Your task to perform on an android device: View the shopping cart on newegg.com. Add "razer nari" to the cart on newegg.com, then select checkout. Image 0: 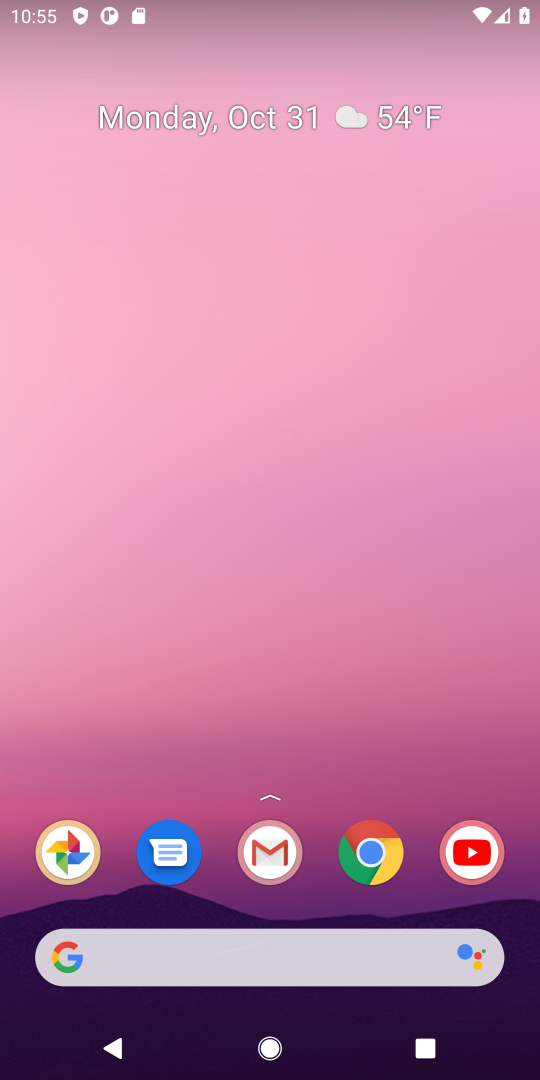
Step 0: click (387, 877)
Your task to perform on an android device: View the shopping cart on newegg.com. Add "razer nari" to the cart on newegg.com, then select checkout. Image 1: 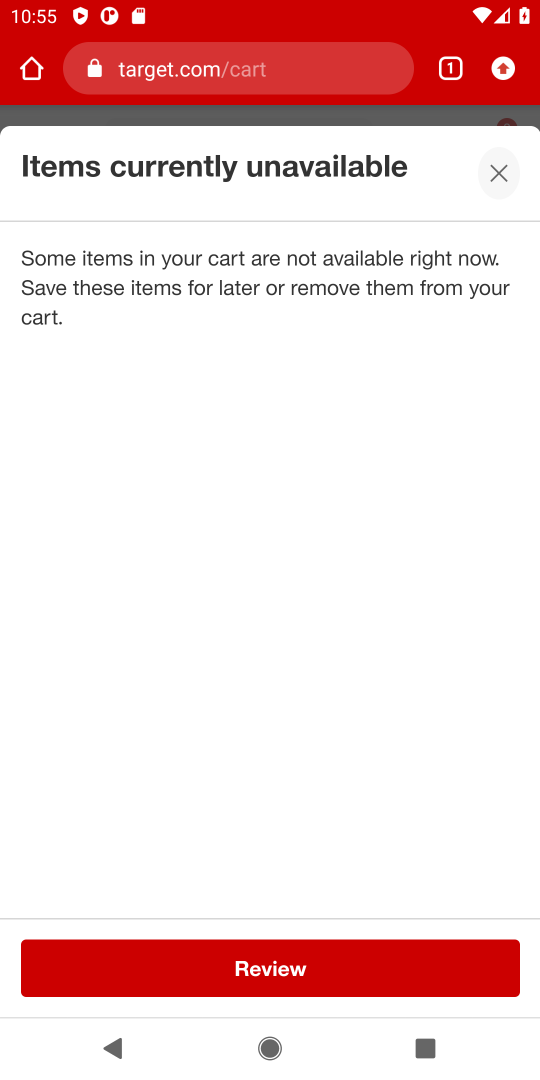
Step 1: click (314, 99)
Your task to perform on an android device: View the shopping cart on newegg.com. Add "razer nari" to the cart on newegg.com, then select checkout. Image 2: 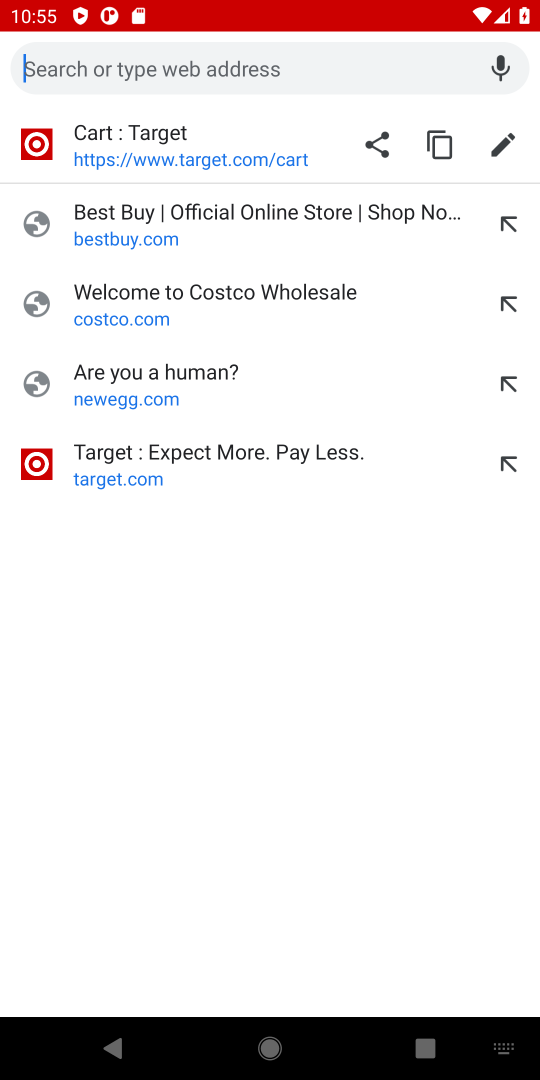
Step 2: type "newegg.com"
Your task to perform on an android device: View the shopping cart on newegg.com. Add "razer nari" to the cart on newegg.com, then select checkout. Image 3: 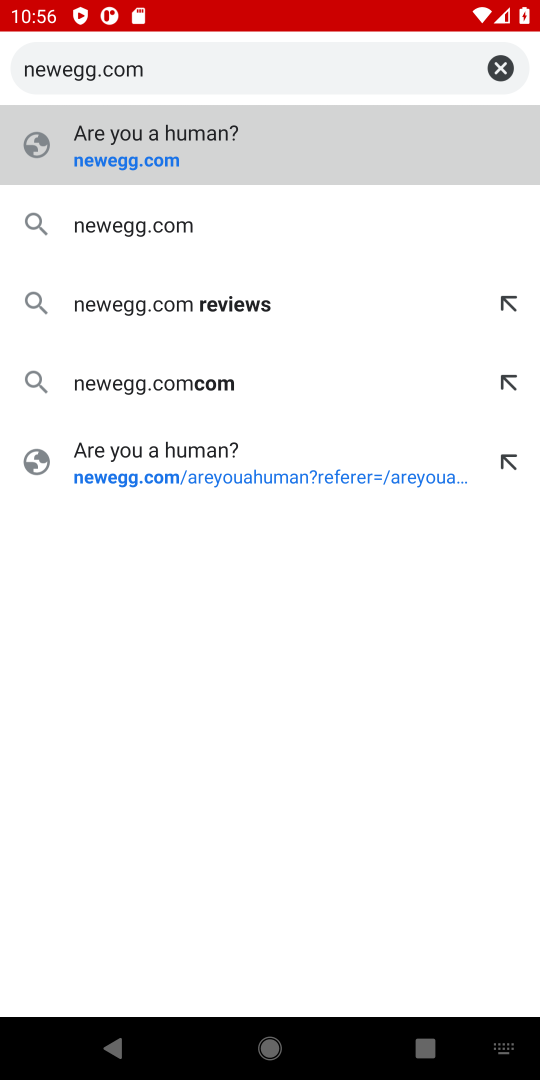
Step 3: press enter
Your task to perform on an android device: View the shopping cart on newegg.com. Add "razer nari" to the cart on newegg.com, then select checkout. Image 4: 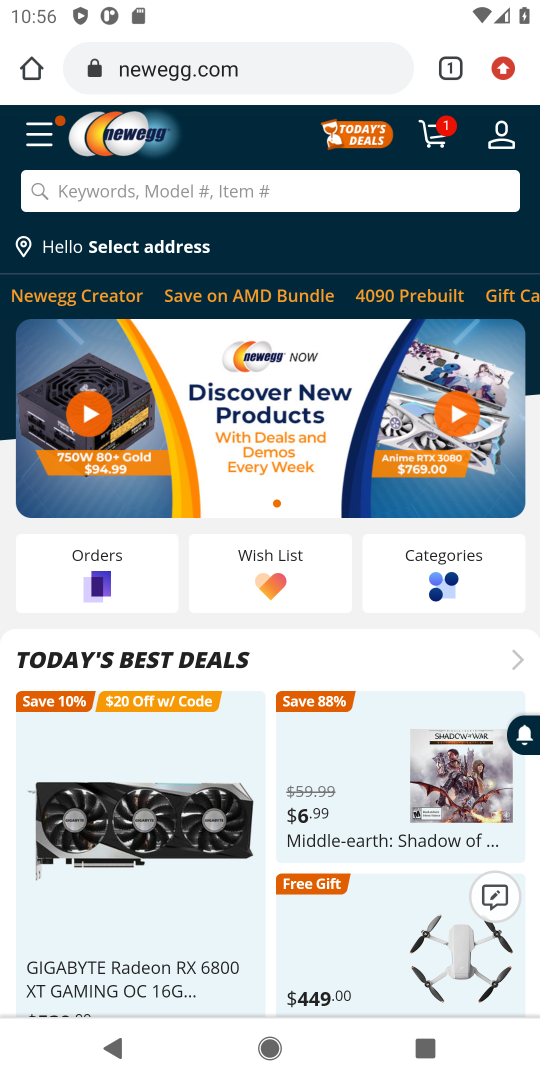
Step 4: click (429, 132)
Your task to perform on an android device: View the shopping cart on newegg.com. Add "razer nari" to the cart on newegg.com, then select checkout. Image 5: 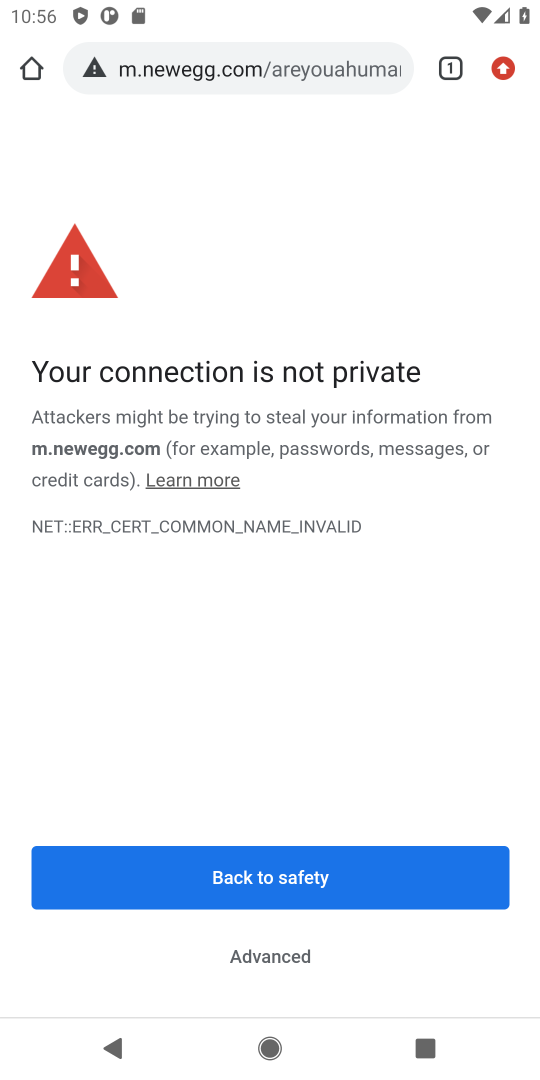
Step 5: click (245, 66)
Your task to perform on an android device: View the shopping cart on newegg.com. Add "razer nari" to the cart on newegg.com, then select checkout. Image 6: 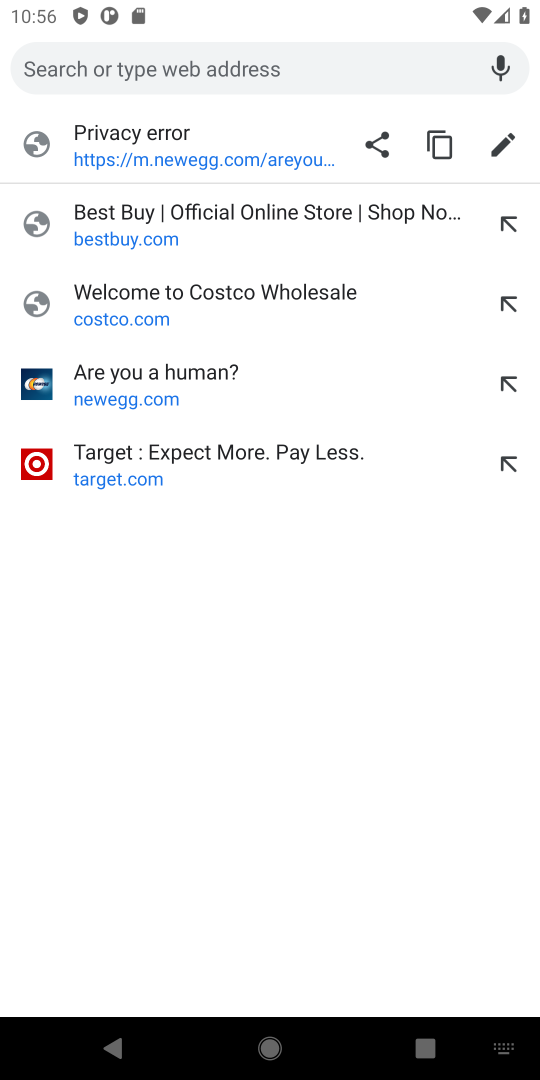
Step 6: type "newegg.com"
Your task to perform on an android device: View the shopping cart on newegg.com. Add "razer nari" to the cart on newegg.com, then select checkout. Image 7: 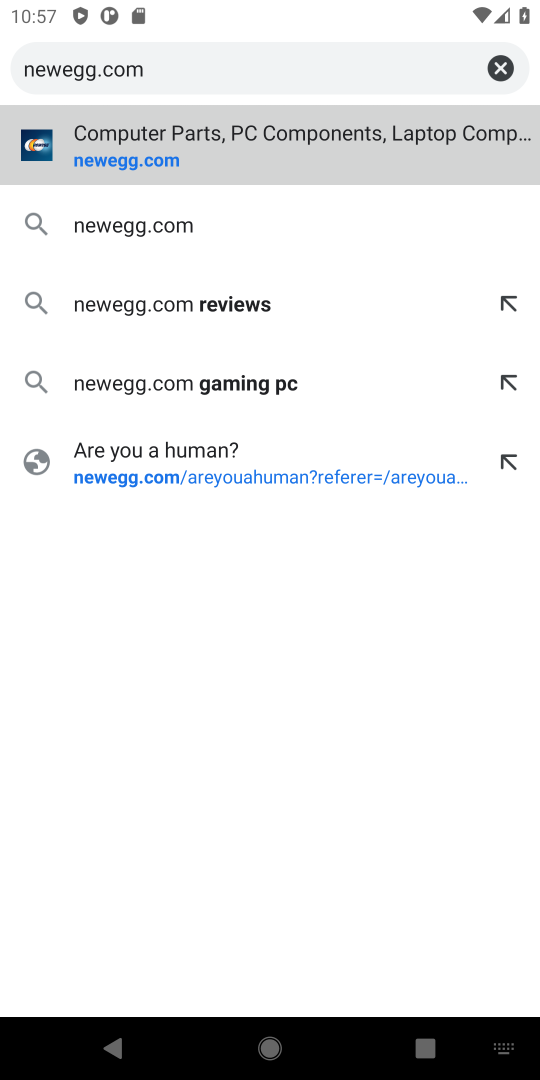
Step 7: press enter
Your task to perform on an android device: View the shopping cart on newegg.com. Add "razer nari" to the cart on newegg.com, then select checkout. Image 8: 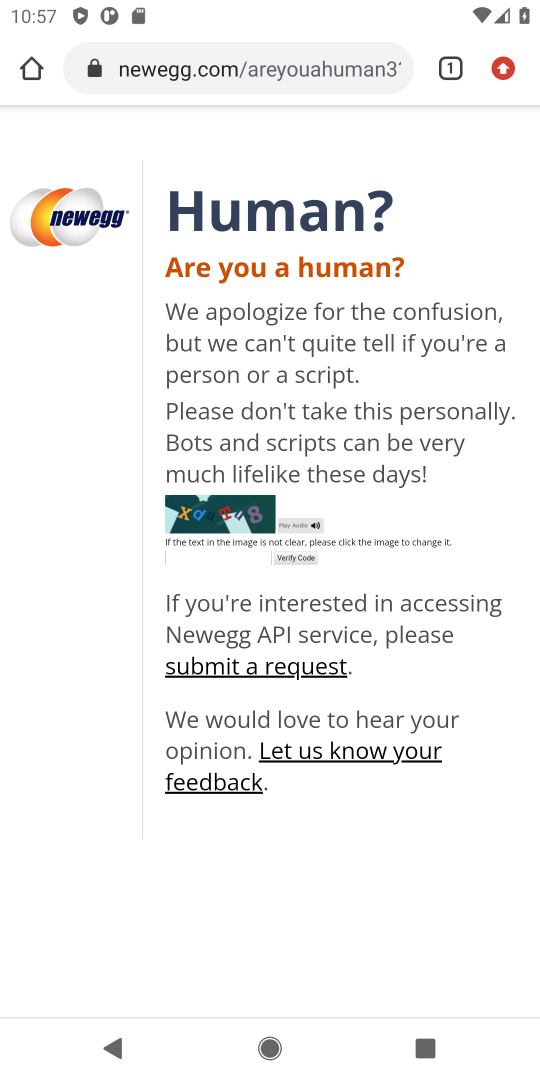
Step 8: click (202, 561)
Your task to perform on an android device: View the shopping cart on newegg.com. Add "razer nari" to the cart on newegg.com, then select checkout. Image 9: 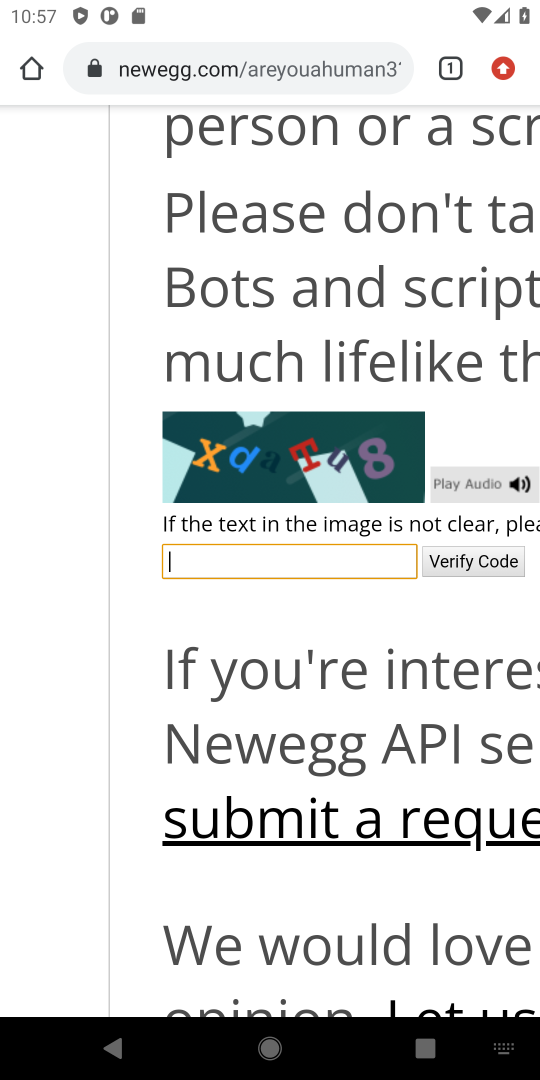
Step 9: type "xdaR"
Your task to perform on an android device: View the shopping cart on newegg.com. Add "razer nari" to the cart on newegg.com, then select checkout. Image 10: 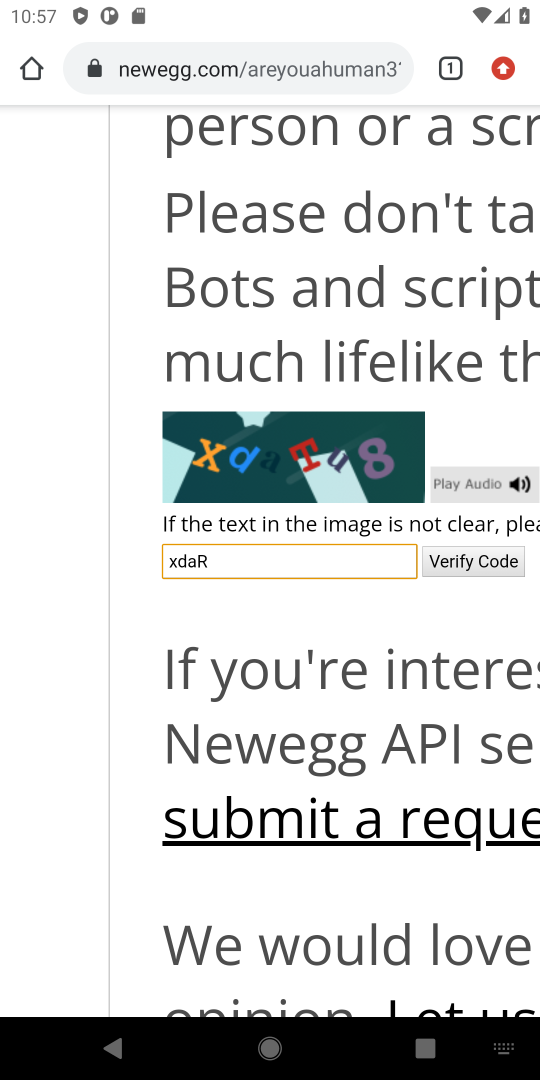
Step 10: type "x"
Your task to perform on an android device: View the shopping cart on newegg.com. Add "razer nari" to the cart on newegg.com, then select checkout. Image 11: 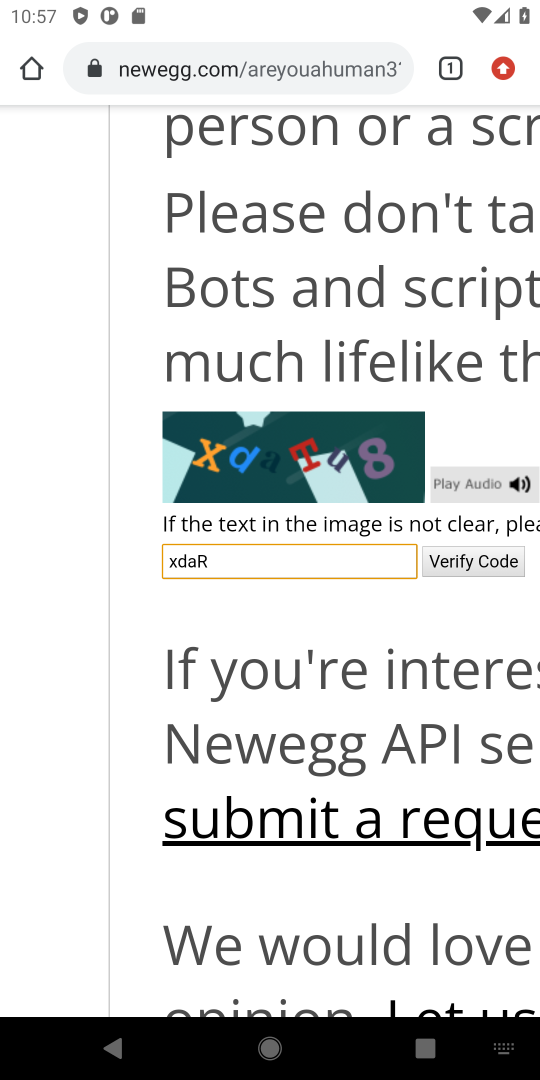
Step 11: click (268, 561)
Your task to perform on an android device: View the shopping cart on newegg.com. Add "razer nari" to the cart on newegg.com, then select checkout. Image 12: 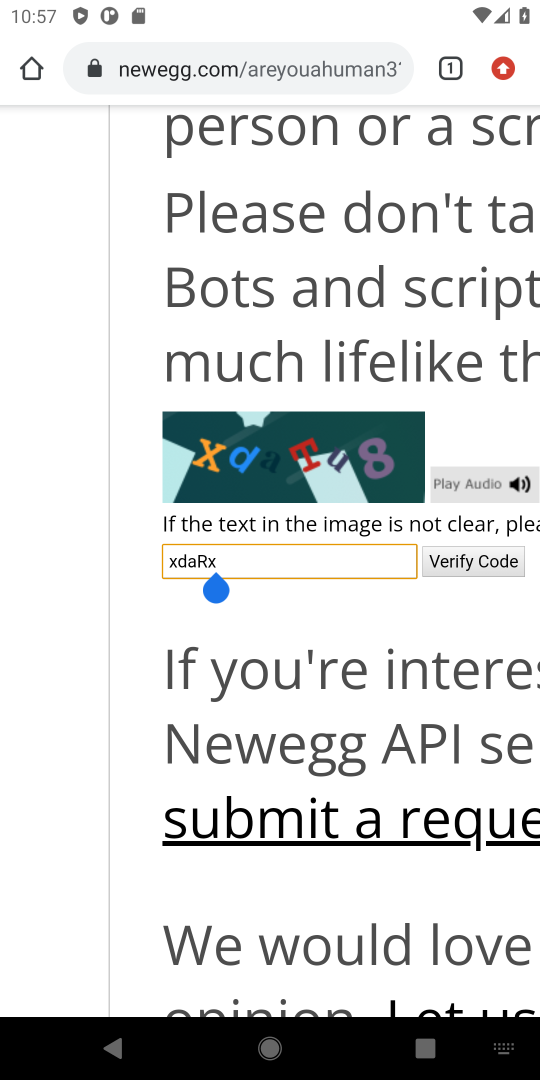
Step 12: click (204, 565)
Your task to perform on an android device: View the shopping cart on newegg.com. Add "razer nari" to the cart on newegg.com, then select checkout. Image 13: 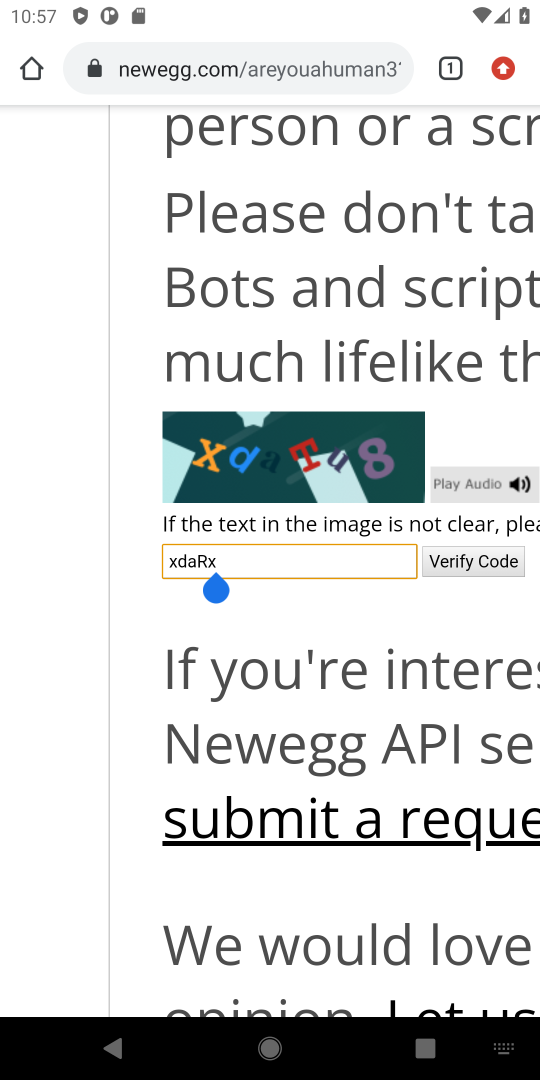
Step 13: click (204, 565)
Your task to perform on an android device: View the shopping cart on newegg.com. Add "razer nari" to the cart on newegg.com, then select checkout. Image 14: 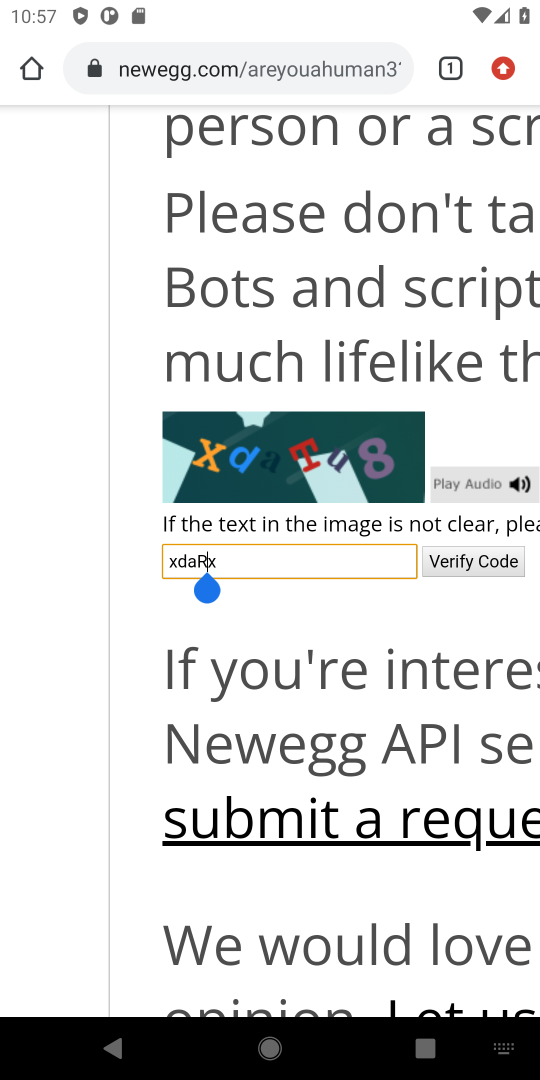
Step 14: click (204, 565)
Your task to perform on an android device: View the shopping cart on newegg.com. Add "razer nari" to the cart on newegg.com, then select checkout. Image 15: 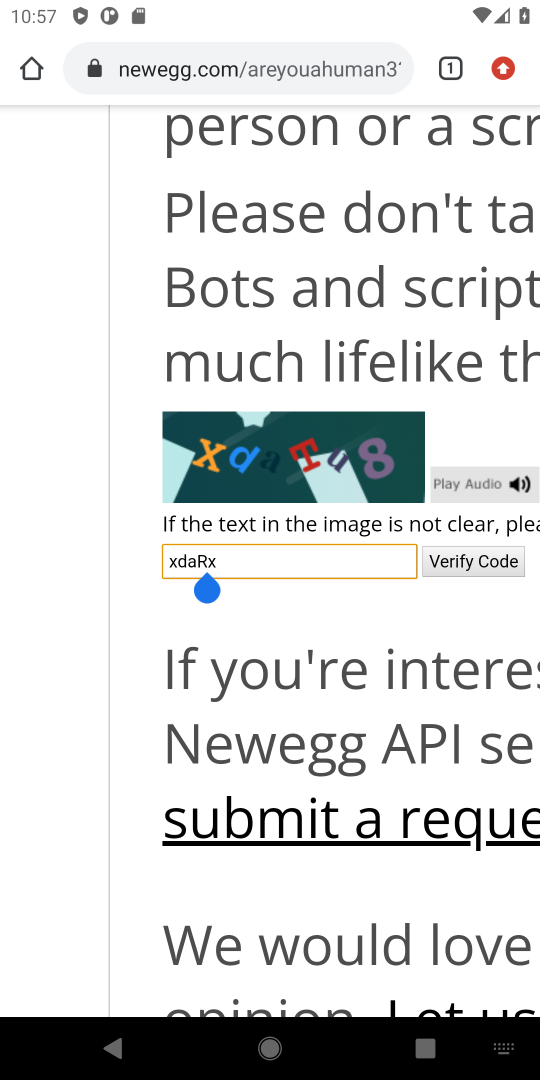
Step 15: click (204, 565)
Your task to perform on an android device: View the shopping cart on newegg.com. Add "razer nari" to the cart on newegg.com, then select checkout. Image 16: 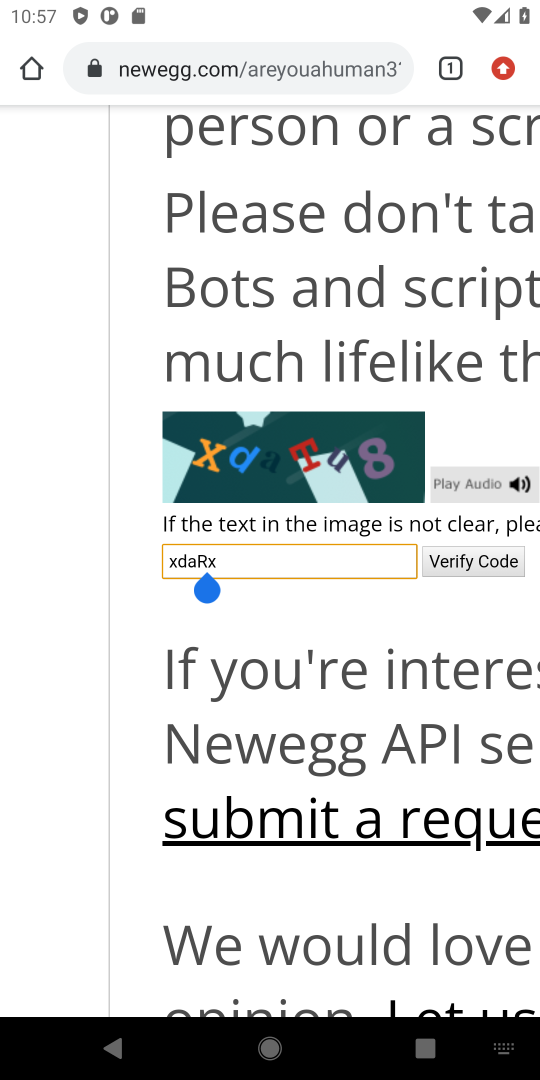
Step 16: click (204, 565)
Your task to perform on an android device: View the shopping cart on newegg.com. Add "razer nari" to the cart on newegg.com, then select checkout. Image 17: 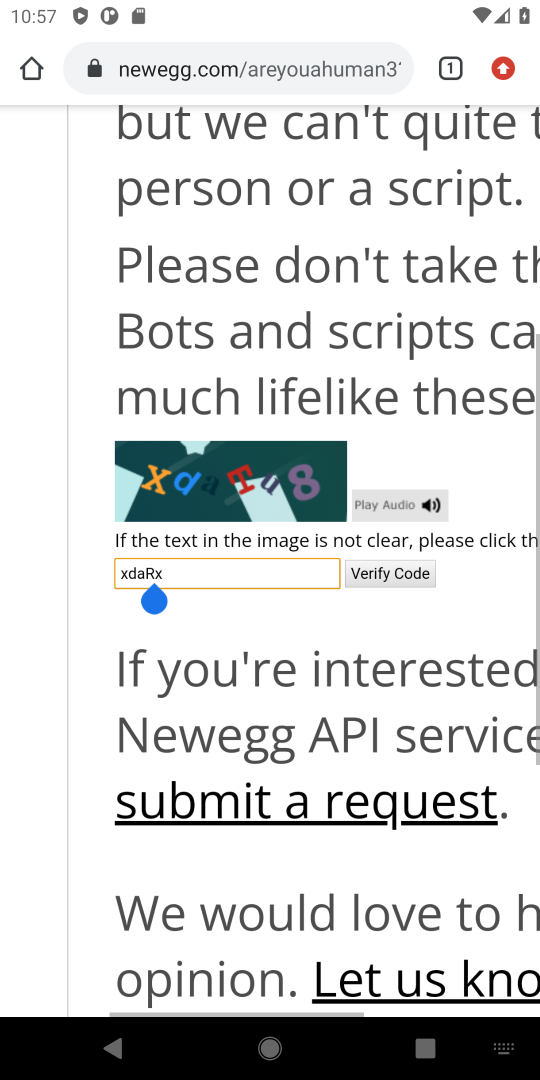
Step 17: click (204, 565)
Your task to perform on an android device: View the shopping cart on newegg.com. Add "razer nari" to the cart on newegg.com, then select checkout. Image 18: 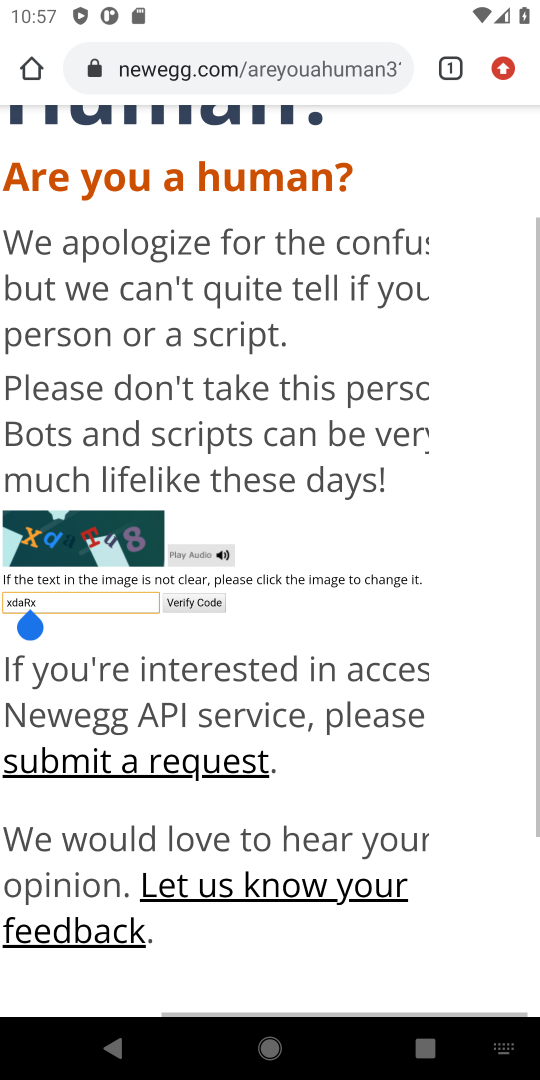
Step 18: click (204, 565)
Your task to perform on an android device: View the shopping cart on newegg.com. Add "razer nari" to the cart on newegg.com, then select checkout. Image 19: 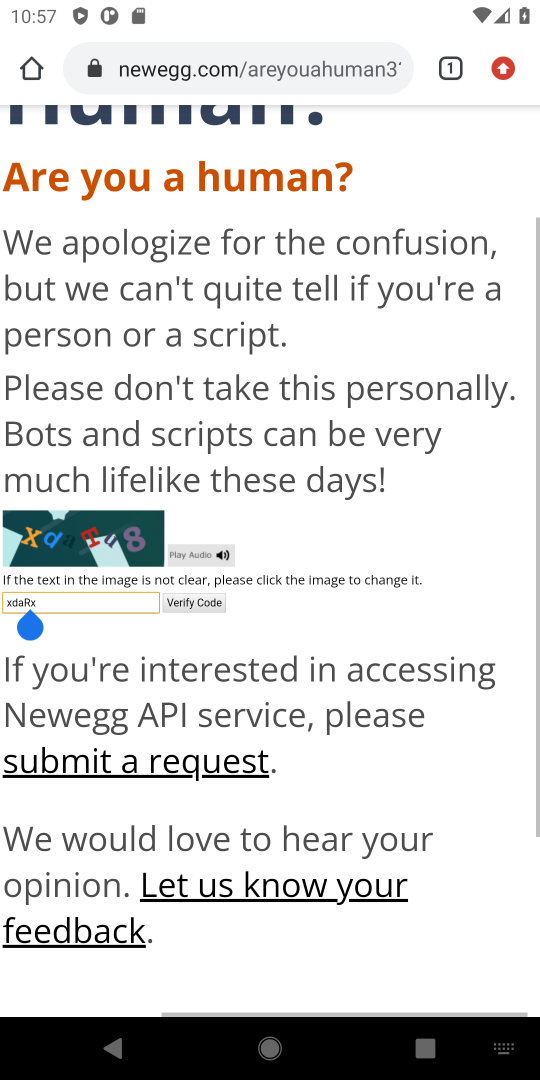
Step 19: click (204, 565)
Your task to perform on an android device: View the shopping cart on newegg.com. Add "razer nari" to the cart on newegg.com, then select checkout. Image 20: 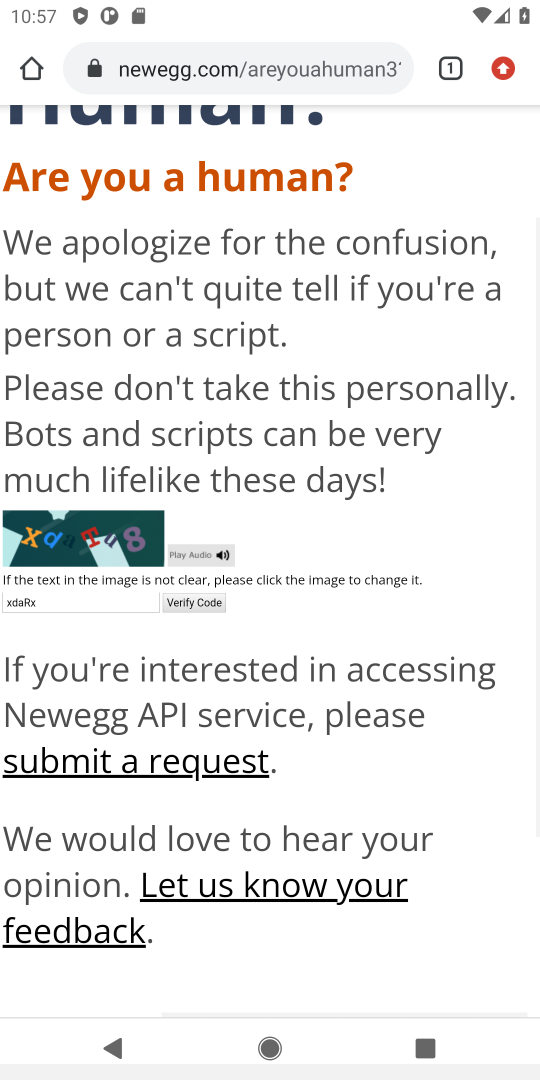
Step 20: click (204, 565)
Your task to perform on an android device: View the shopping cart on newegg.com. Add "razer nari" to the cart on newegg.com, then select checkout. Image 21: 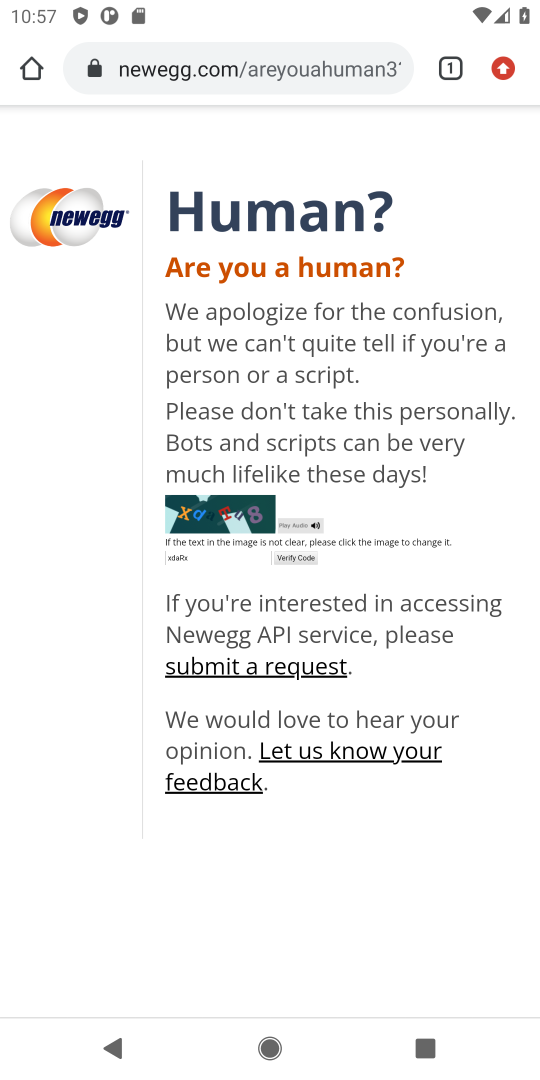
Step 21: press back button
Your task to perform on an android device: View the shopping cart on newegg.com. Add "razer nari" to the cart on newegg.com, then select checkout. Image 22: 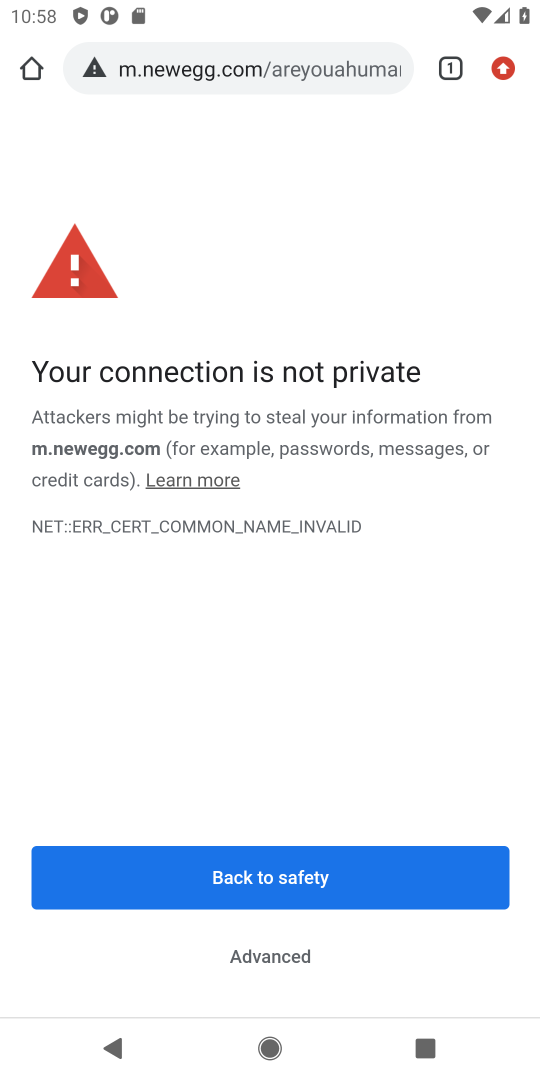
Step 22: click (252, 71)
Your task to perform on an android device: View the shopping cart on newegg.com. Add "razer nari" to the cart on newegg.com, then select checkout. Image 23: 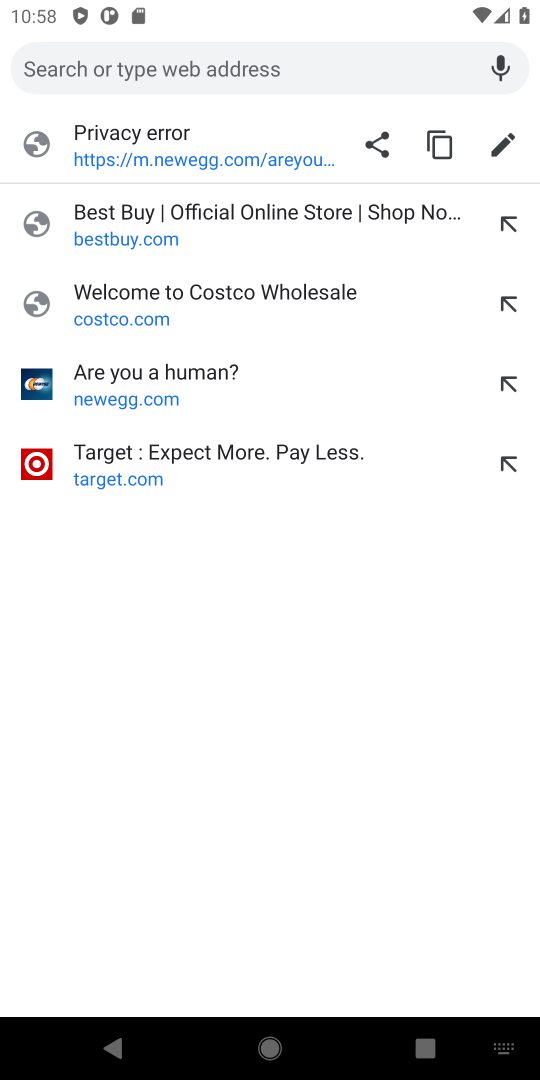
Step 23: type "newegg.com"
Your task to perform on an android device: View the shopping cart on newegg.com. Add "razer nari" to the cart on newegg.com, then select checkout. Image 24: 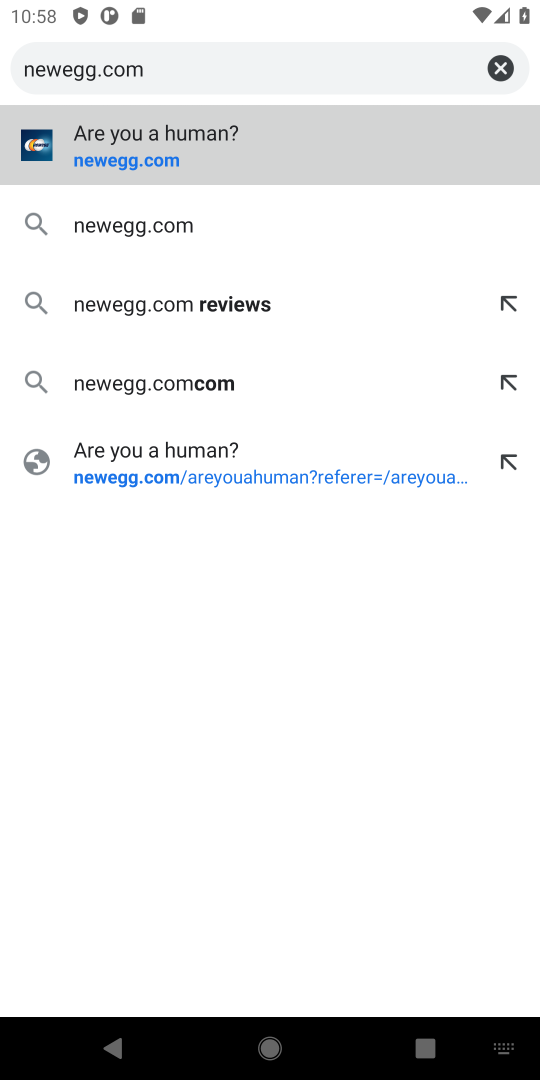
Step 24: press enter
Your task to perform on an android device: View the shopping cart on newegg.com. Add "razer nari" to the cart on newegg.com, then select checkout. Image 25: 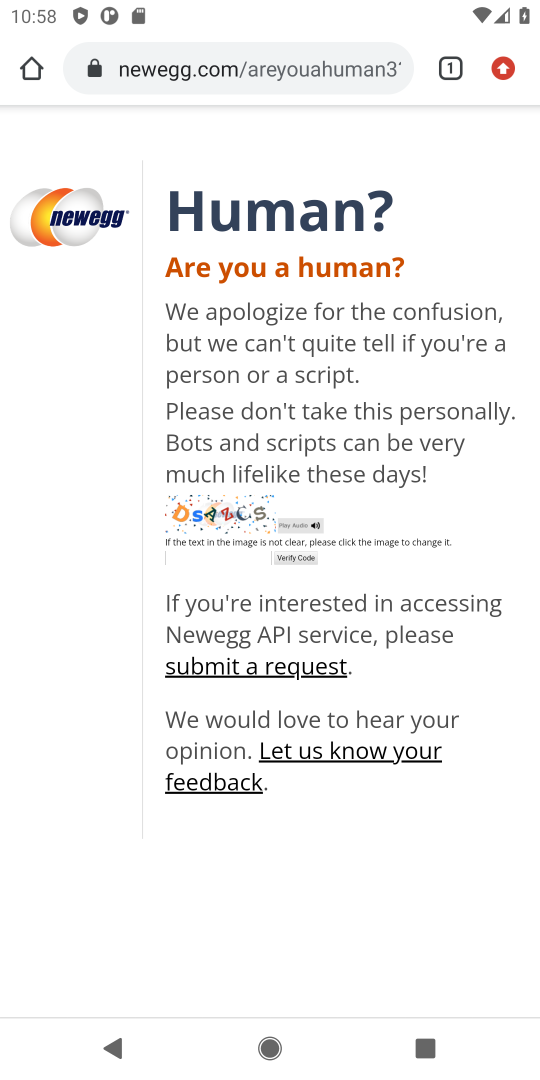
Step 25: task complete